Your task to perform on an android device: find which apps use the phone's location Image 0: 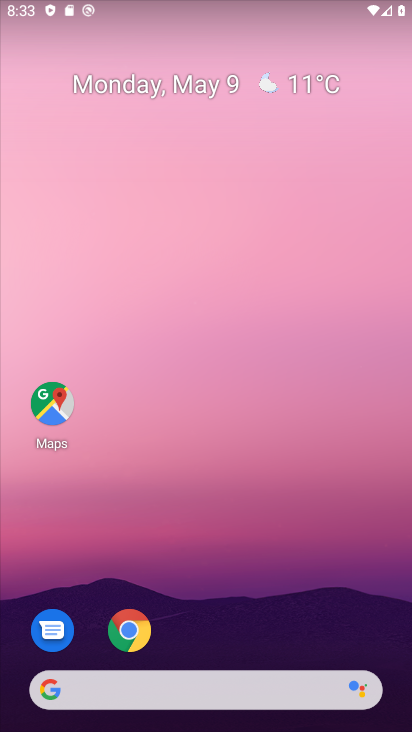
Step 0: drag from (209, 659) to (340, 10)
Your task to perform on an android device: find which apps use the phone's location Image 1: 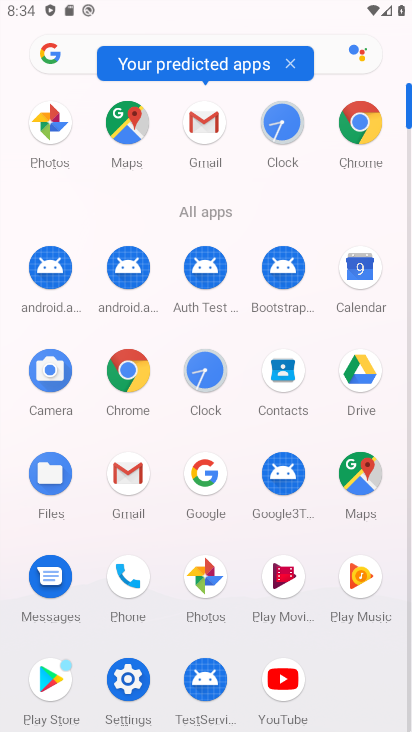
Step 1: click (126, 672)
Your task to perform on an android device: find which apps use the phone's location Image 2: 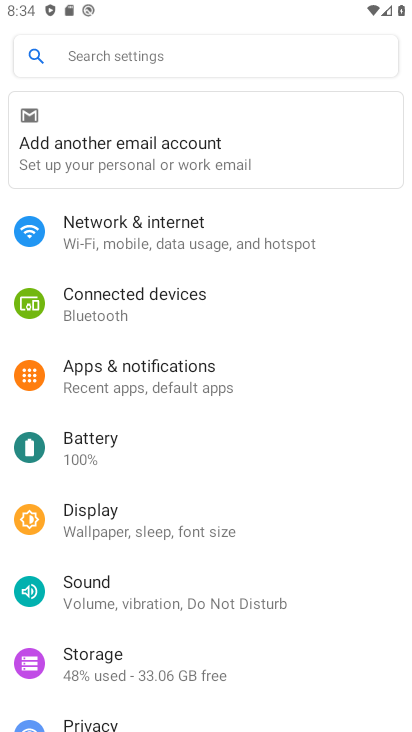
Step 2: drag from (143, 685) to (281, 301)
Your task to perform on an android device: find which apps use the phone's location Image 3: 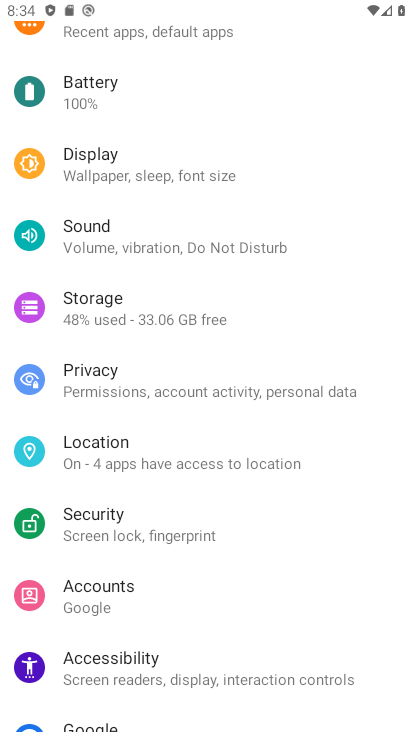
Step 3: click (151, 444)
Your task to perform on an android device: find which apps use the phone's location Image 4: 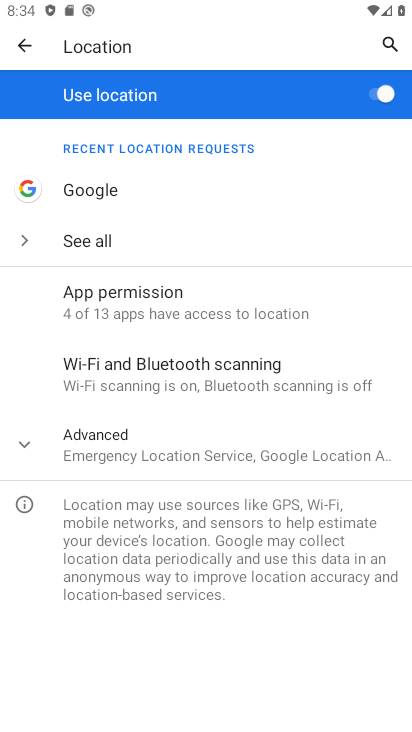
Step 4: click (168, 301)
Your task to perform on an android device: find which apps use the phone's location Image 5: 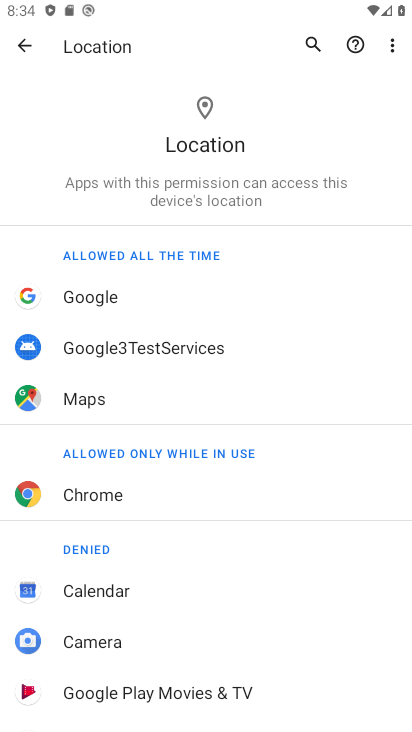
Step 5: task complete